Your task to perform on an android device: choose inbox layout in the gmail app Image 0: 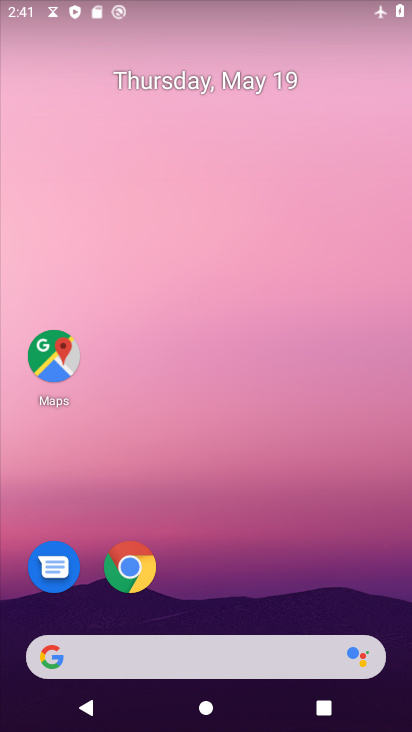
Step 0: drag from (200, 629) to (175, 51)
Your task to perform on an android device: choose inbox layout in the gmail app Image 1: 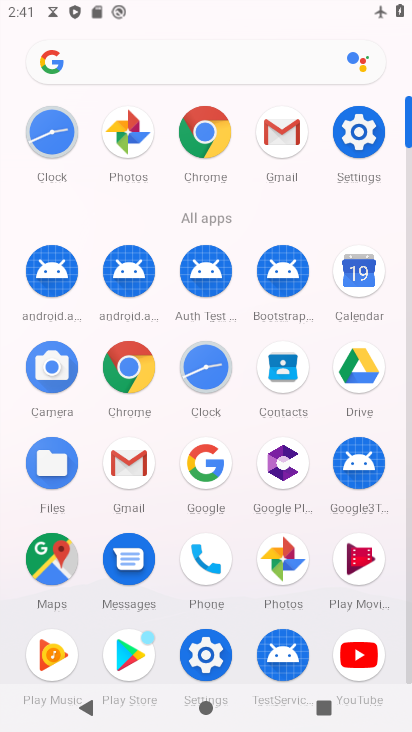
Step 1: click (121, 481)
Your task to perform on an android device: choose inbox layout in the gmail app Image 2: 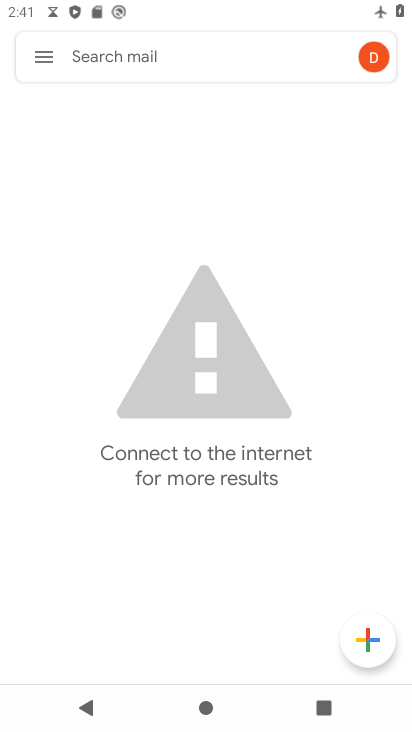
Step 2: click (34, 56)
Your task to perform on an android device: choose inbox layout in the gmail app Image 3: 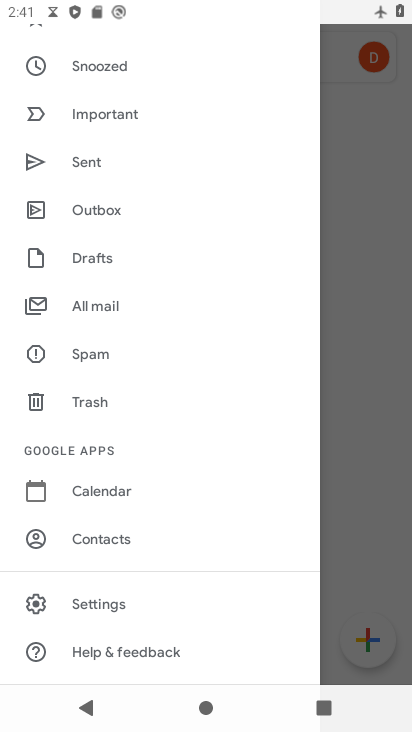
Step 3: click (111, 609)
Your task to perform on an android device: choose inbox layout in the gmail app Image 4: 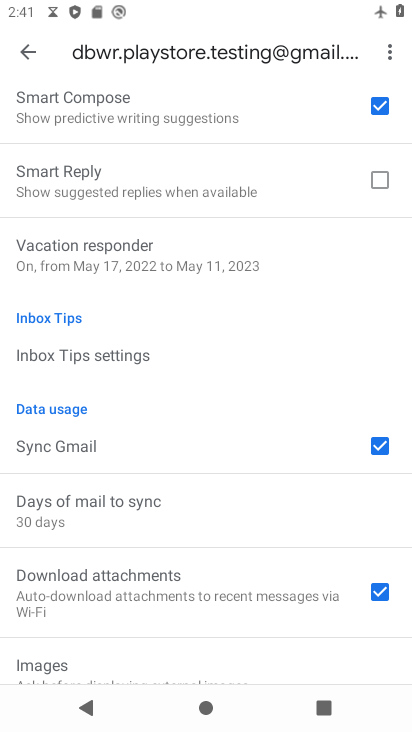
Step 4: drag from (85, 176) to (85, 618)
Your task to perform on an android device: choose inbox layout in the gmail app Image 5: 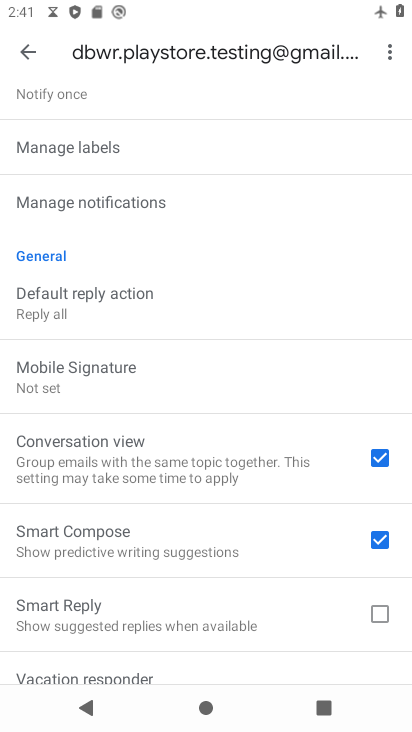
Step 5: drag from (99, 121) to (105, 660)
Your task to perform on an android device: choose inbox layout in the gmail app Image 6: 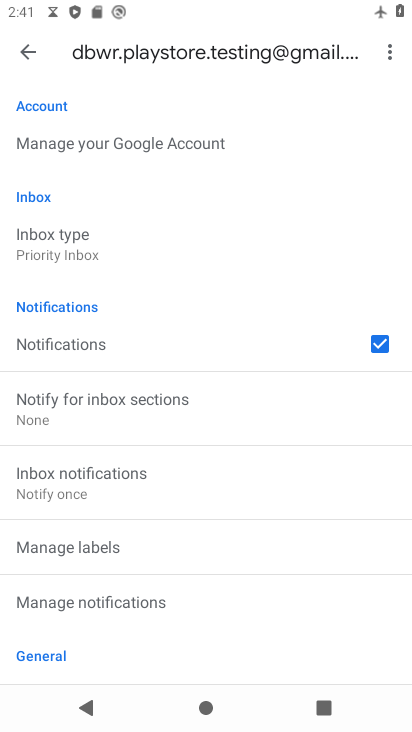
Step 6: click (79, 265)
Your task to perform on an android device: choose inbox layout in the gmail app Image 7: 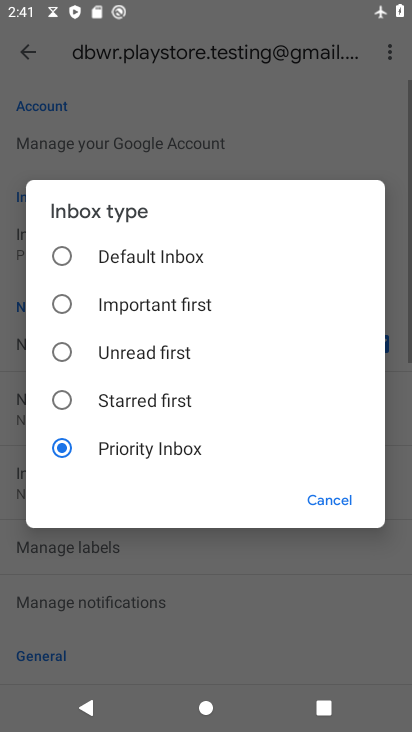
Step 7: click (74, 245)
Your task to perform on an android device: choose inbox layout in the gmail app Image 8: 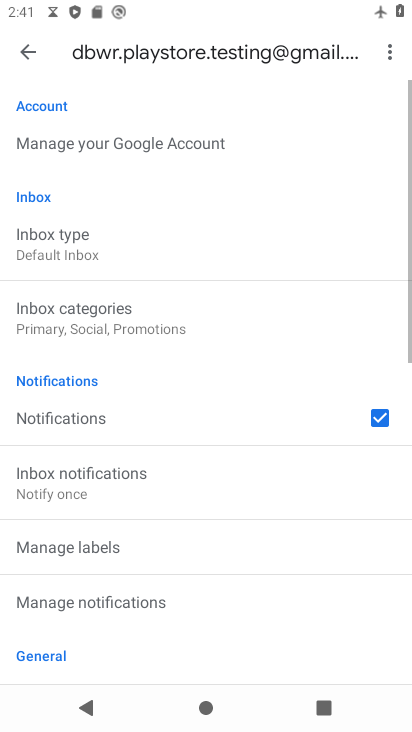
Step 8: click (73, 244)
Your task to perform on an android device: choose inbox layout in the gmail app Image 9: 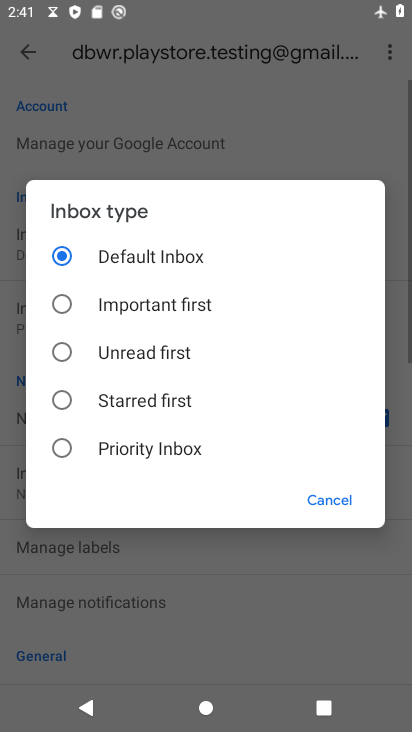
Step 9: click (120, 457)
Your task to perform on an android device: choose inbox layout in the gmail app Image 10: 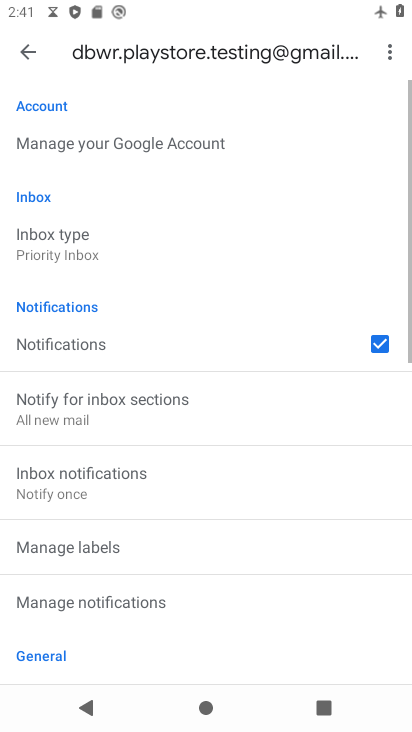
Step 10: click (22, 53)
Your task to perform on an android device: choose inbox layout in the gmail app Image 11: 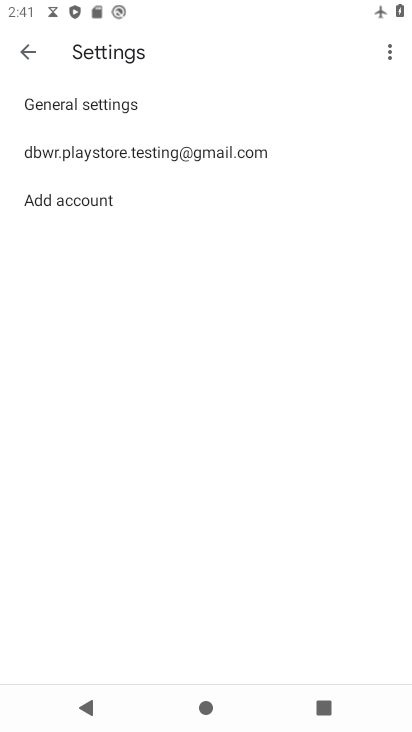
Step 11: click (26, 53)
Your task to perform on an android device: choose inbox layout in the gmail app Image 12: 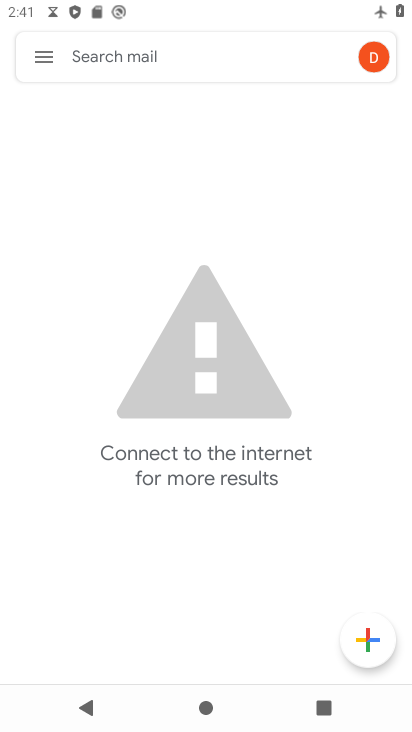
Step 12: click (27, 53)
Your task to perform on an android device: choose inbox layout in the gmail app Image 13: 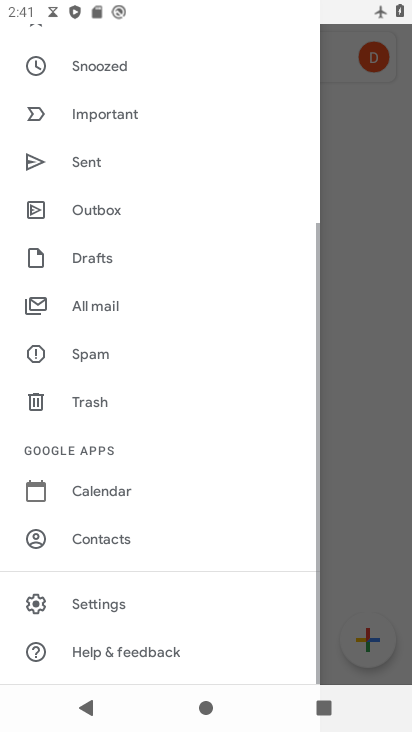
Step 13: drag from (64, 88) to (109, 609)
Your task to perform on an android device: choose inbox layout in the gmail app Image 14: 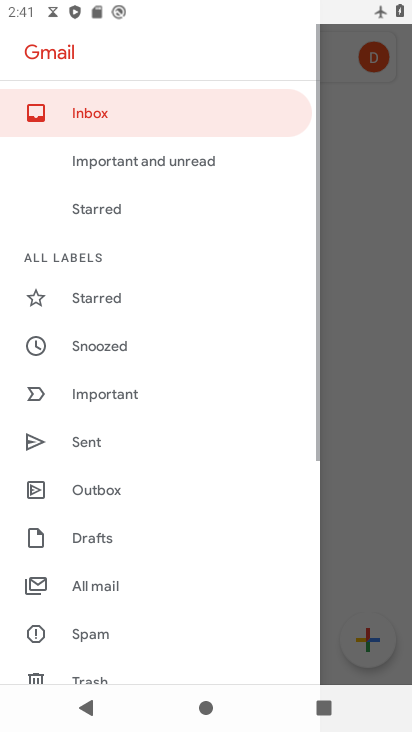
Step 14: click (83, 124)
Your task to perform on an android device: choose inbox layout in the gmail app Image 15: 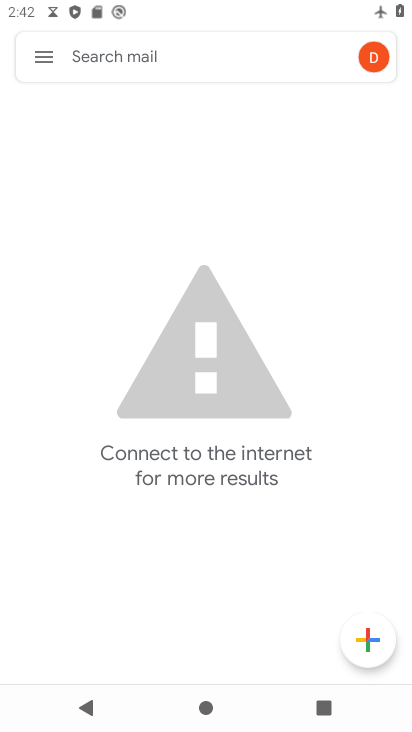
Step 15: task complete